Your task to perform on an android device: set default search engine in the chrome app Image 0: 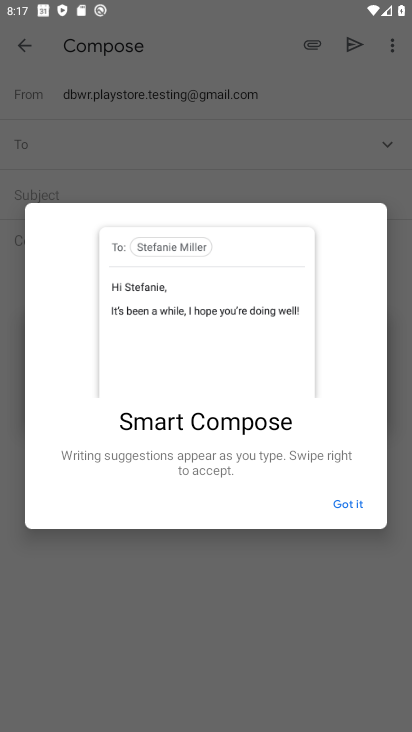
Step 0: press home button
Your task to perform on an android device: set default search engine in the chrome app Image 1: 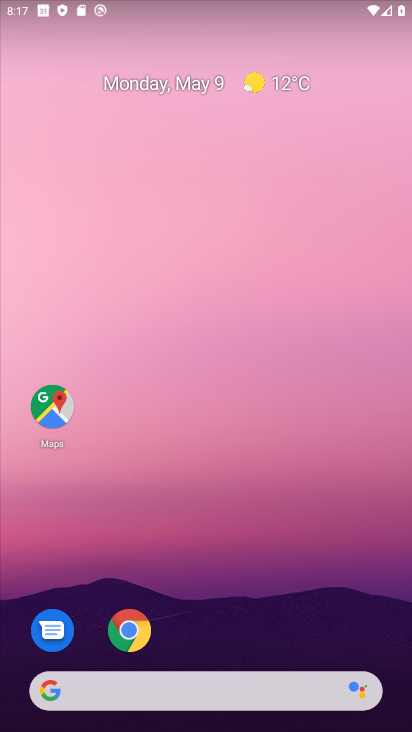
Step 1: click (130, 624)
Your task to perform on an android device: set default search engine in the chrome app Image 2: 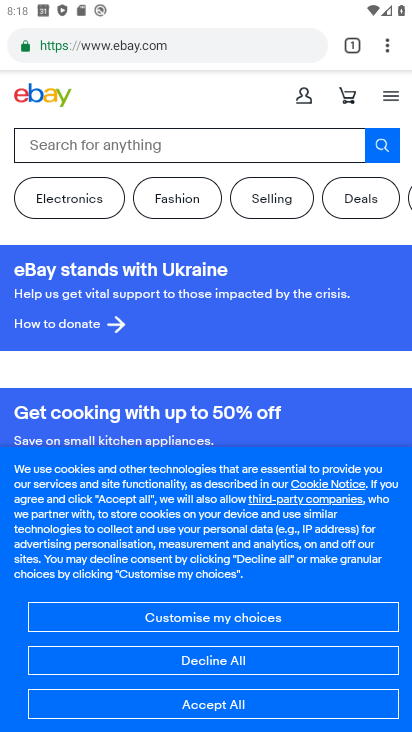
Step 2: click (388, 47)
Your task to perform on an android device: set default search engine in the chrome app Image 3: 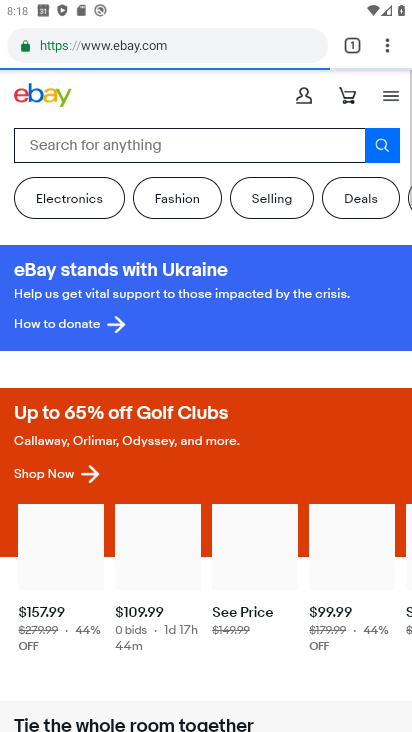
Step 3: click (387, 47)
Your task to perform on an android device: set default search engine in the chrome app Image 4: 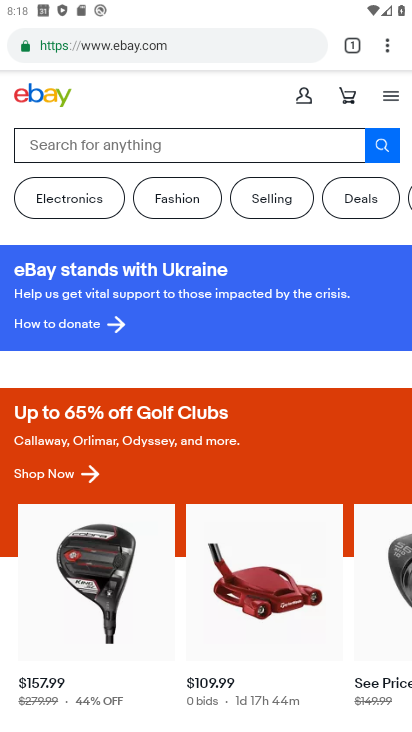
Step 4: click (394, 51)
Your task to perform on an android device: set default search engine in the chrome app Image 5: 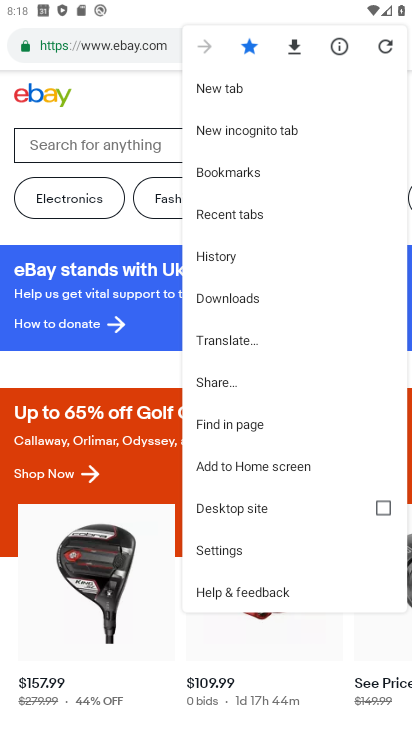
Step 5: click (240, 549)
Your task to perform on an android device: set default search engine in the chrome app Image 6: 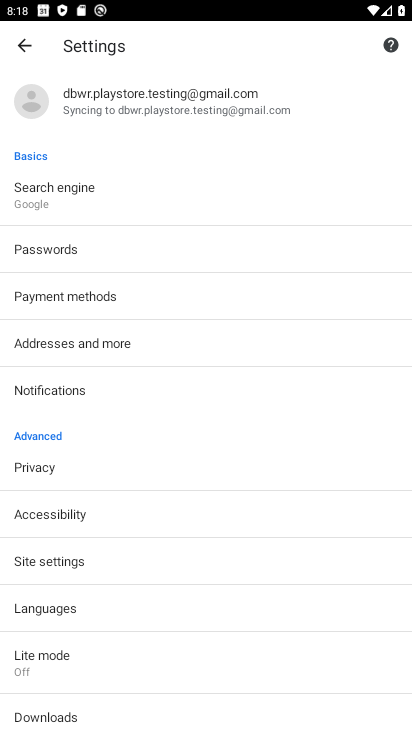
Step 6: click (76, 199)
Your task to perform on an android device: set default search engine in the chrome app Image 7: 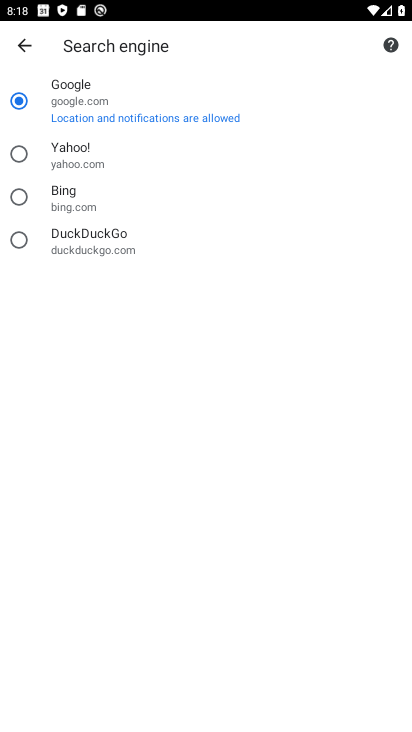
Step 7: click (19, 231)
Your task to perform on an android device: set default search engine in the chrome app Image 8: 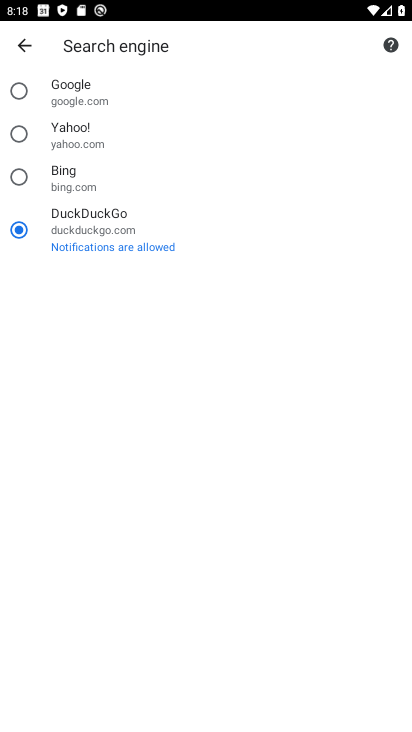
Step 8: click (26, 42)
Your task to perform on an android device: set default search engine in the chrome app Image 9: 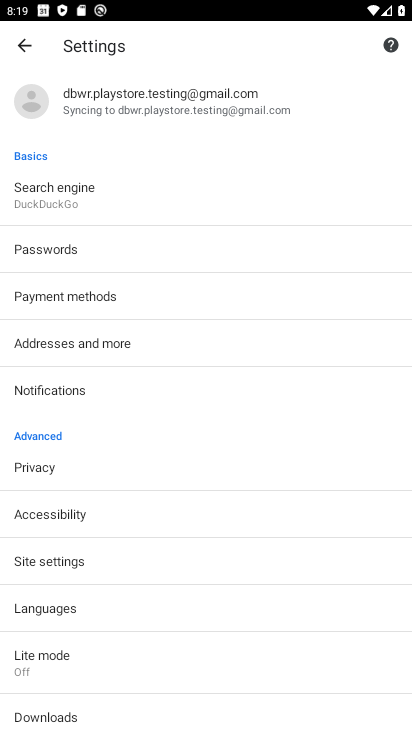
Step 9: task complete